Your task to perform on an android device: manage bookmarks in the chrome app Image 0: 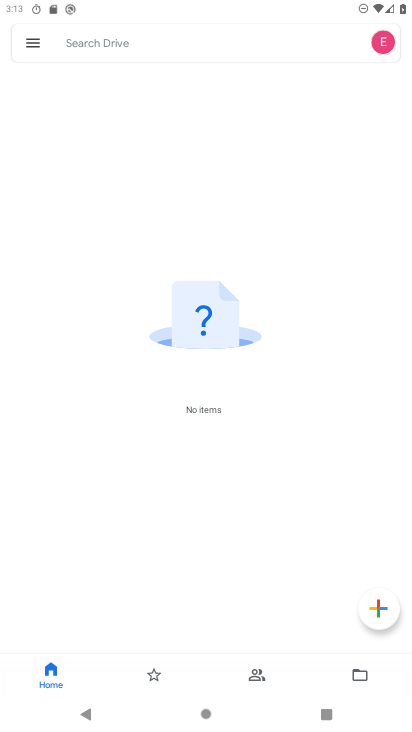
Step 0: press home button
Your task to perform on an android device: manage bookmarks in the chrome app Image 1: 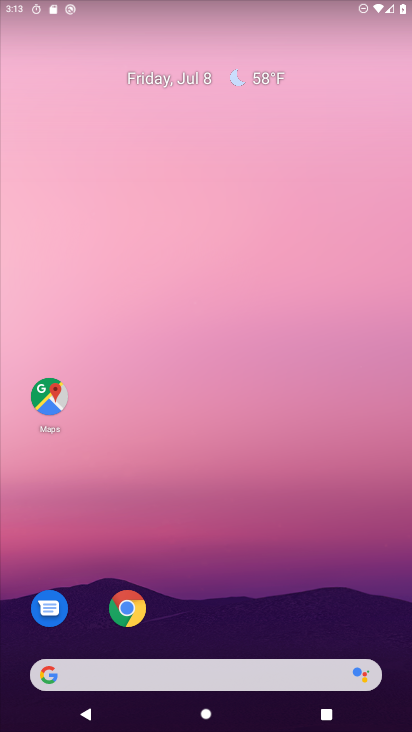
Step 1: click (126, 610)
Your task to perform on an android device: manage bookmarks in the chrome app Image 2: 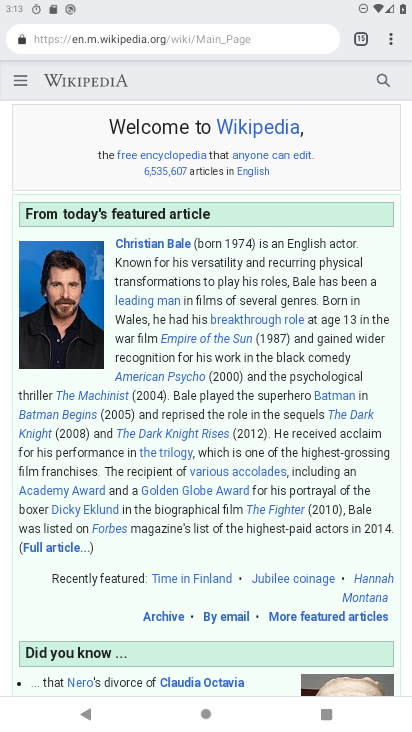
Step 2: click (391, 44)
Your task to perform on an android device: manage bookmarks in the chrome app Image 3: 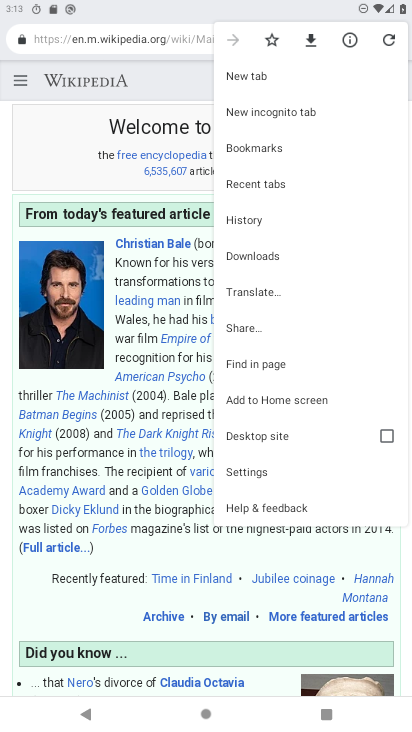
Step 3: click (250, 145)
Your task to perform on an android device: manage bookmarks in the chrome app Image 4: 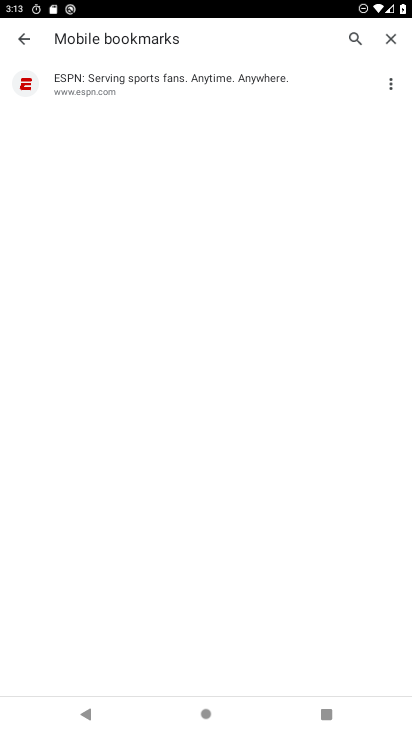
Step 4: click (392, 85)
Your task to perform on an android device: manage bookmarks in the chrome app Image 5: 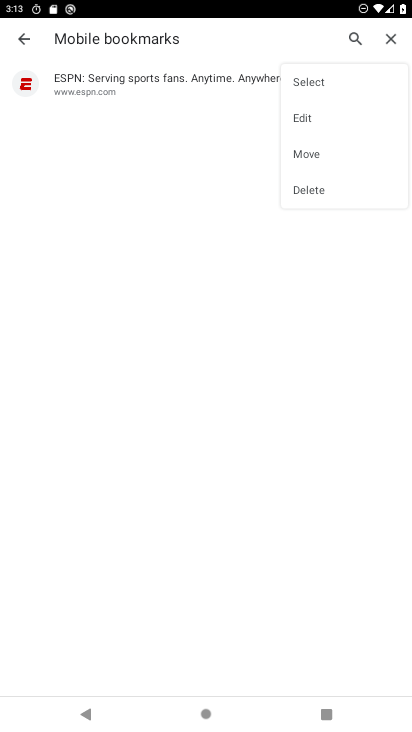
Step 5: click (299, 116)
Your task to perform on an android device: manage bookmarks in the chrome app Image 6: 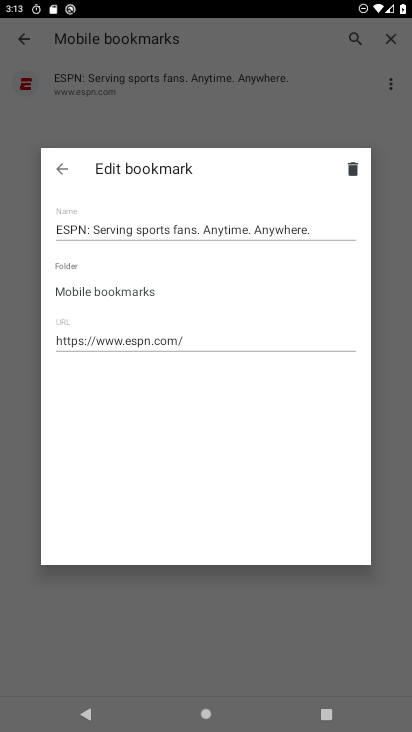
Step 6: click (232, 227)
Your task to perform on an android device: manage bookmarks in the chrome app Image 7: 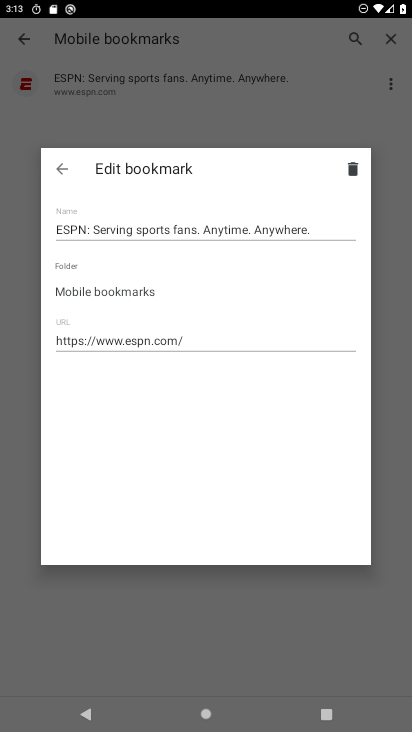
Step 7: click (232, 227)
Your task to perform on an android device: manage bookmarks in the chrome app Image 8: 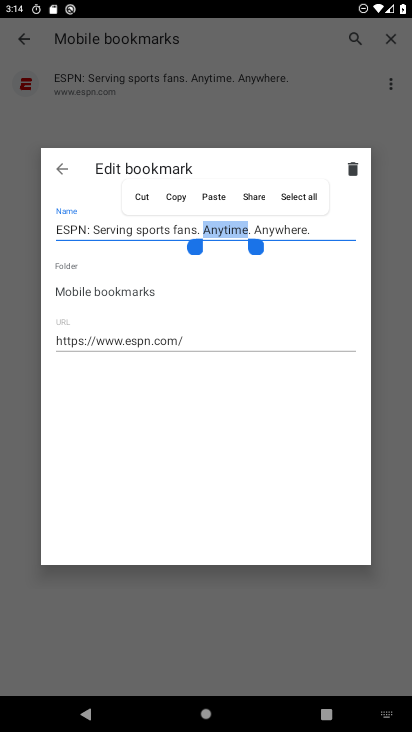
Step 8: click (140, 194)
Your task to perform on an android device: manage bookmarks in the chrome app Image 9: 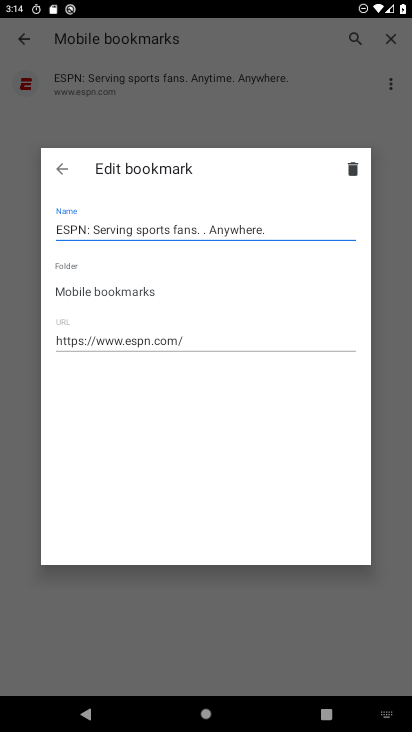
Step 9: click (194, 625)
Your task to perform on an android device: manage bookmarks in the chrome app Image 10: 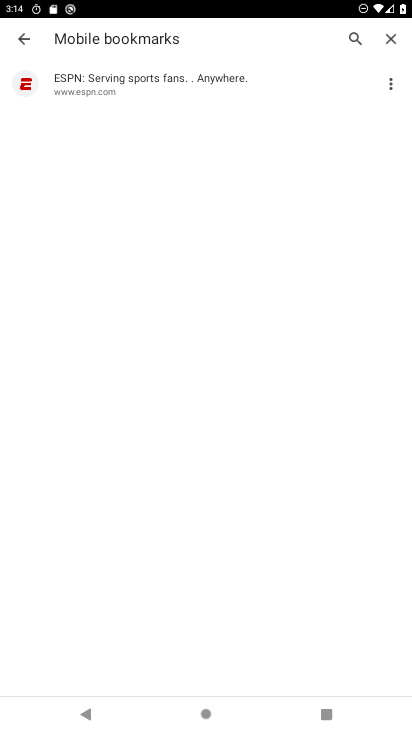
Step 10: task complete